Your task to perform on an android device: Go to Wikipedia Image 0: 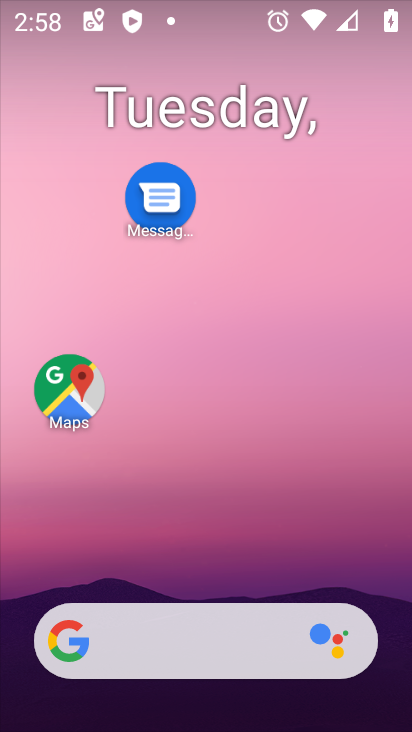
Step 0: drag from (180, 577) to (188, 293)
Your task to perform on an android device: Go to Wikipedia Image 1: 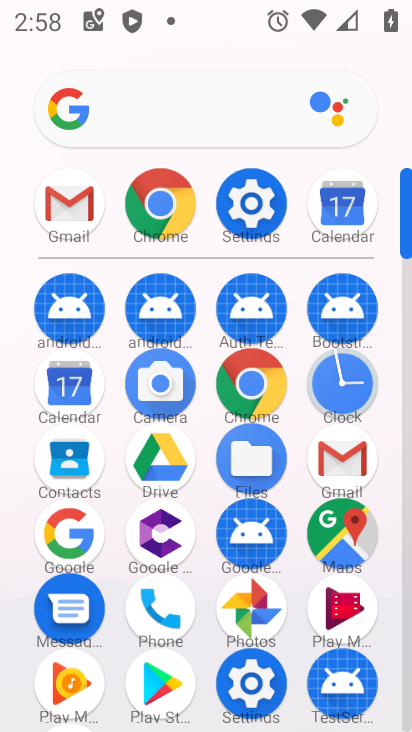
Step 1: click (154, 221)
Your task to perform on an android device: Go to Wikipedia Image 2: 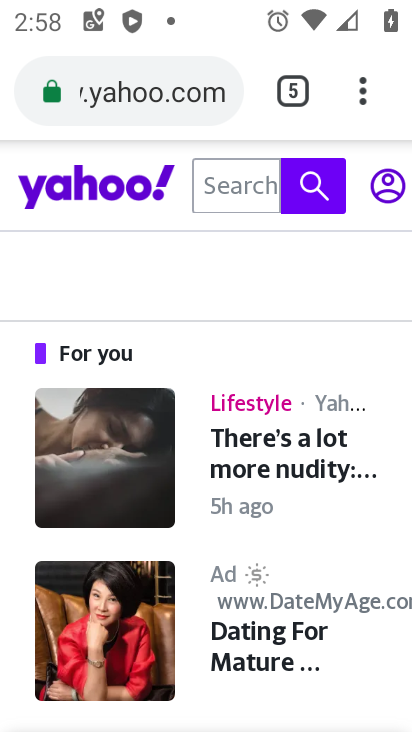
Step 2: click (290, 87)
Your task to perform on an android device: Go to Wikipedia Image 3: 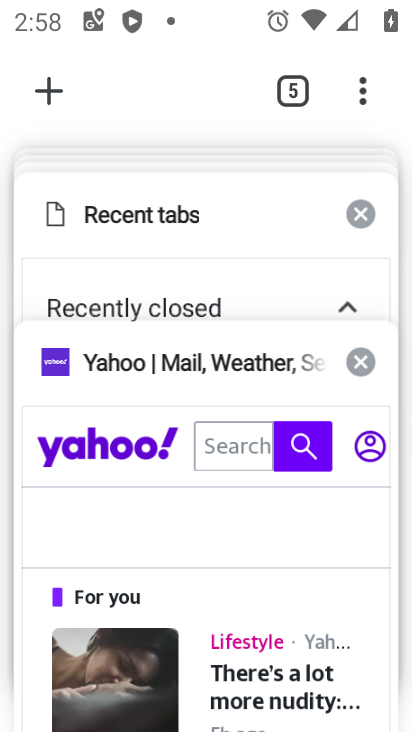
Step 3: click (54, 93)
Your task to perform on an android device: Go to Wikipedia Image 4: 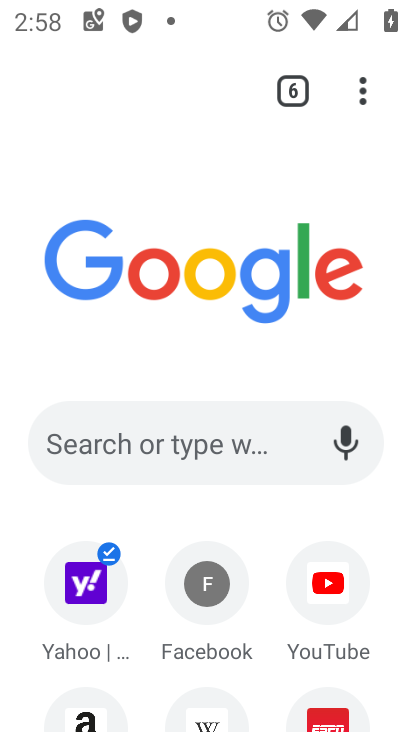
Step 4: click (166, 411)
Your task to perform on an android device: Go to Wikipedia Image 5: 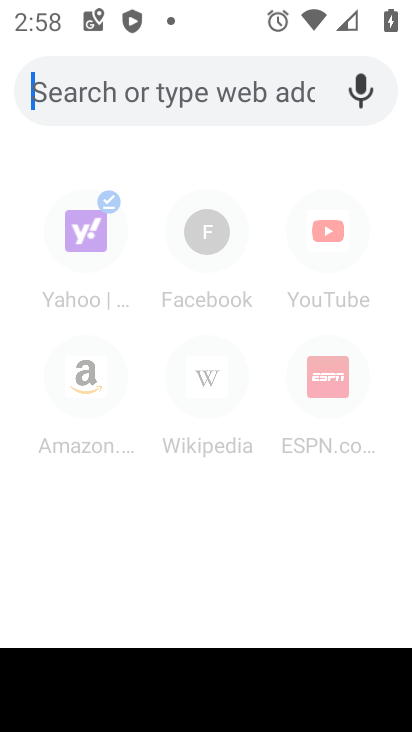
Step 5: type "Wikipedia"
Your task to perform on an android device: Go to Wikipedia Image 6: 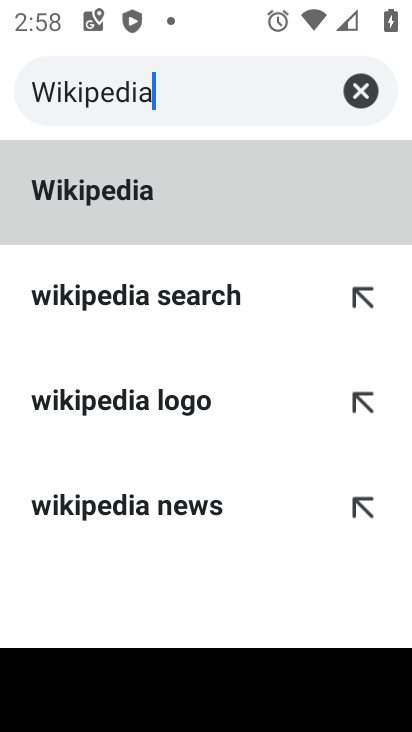
Step 6: click (229, 211)
Your task to perform on an android device: Go to Wikipedia Image 7: 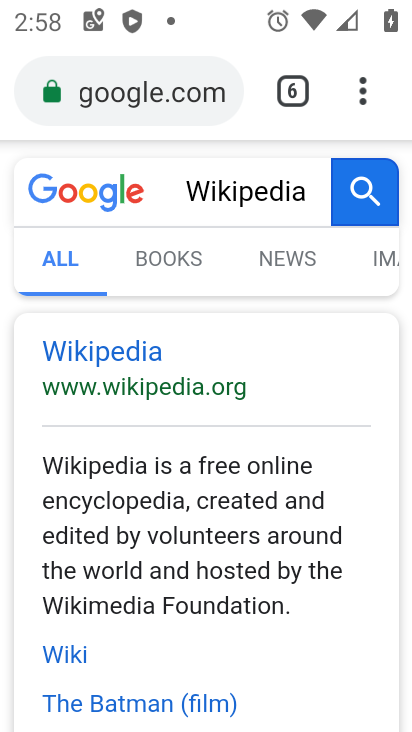
Step 7: click (77, 348)
Your task to perform on an android device: Go to Wikipedia Image 8: 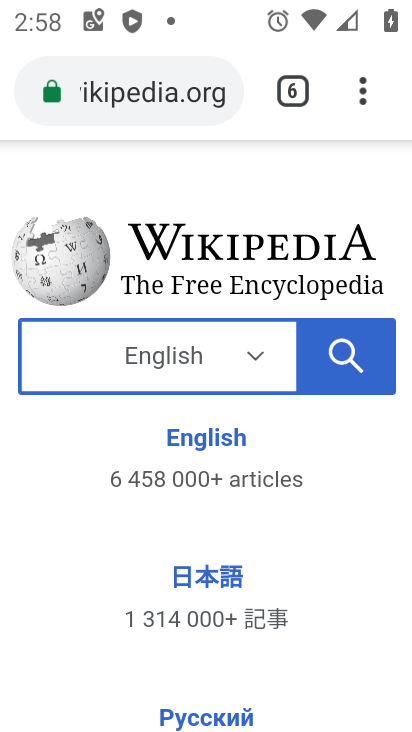
Step 8: task complete